Your task to perform on an android device: turn on improve location accuracy Image 0: 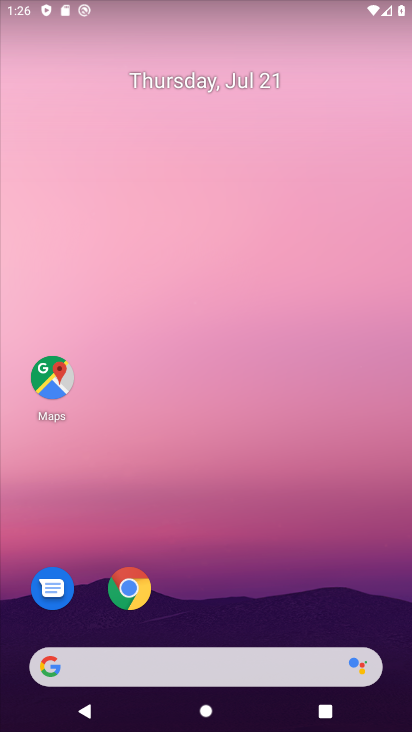
Step 0: drag from (242, 615) to (208, 55)
Your task to perform on an android device: turn on improve location accuracy Image 1: 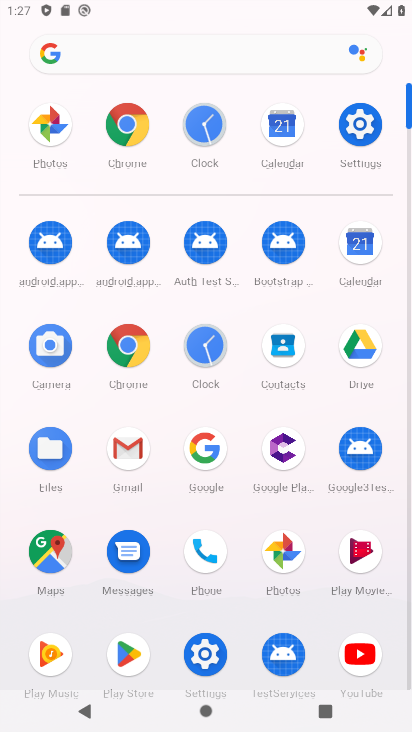
Step 1: click (363, 124)
Your task to perform on an android device: turn on improve location accuracy Image 2: 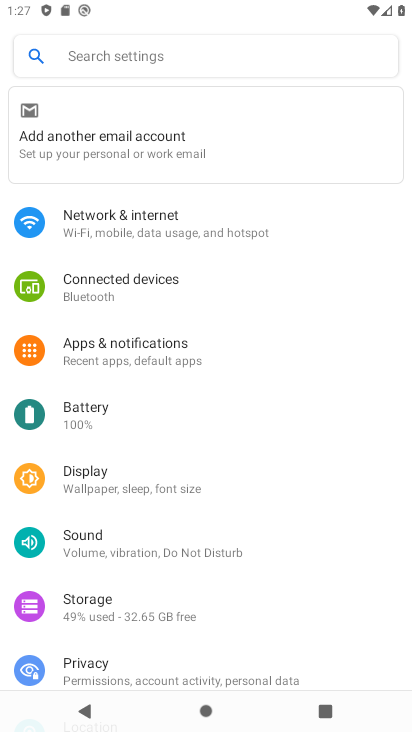
Step 2: drag from (171, 603) to (151, 210)
Your task to perform on an android device: turn on improve location accuracy Image 3: 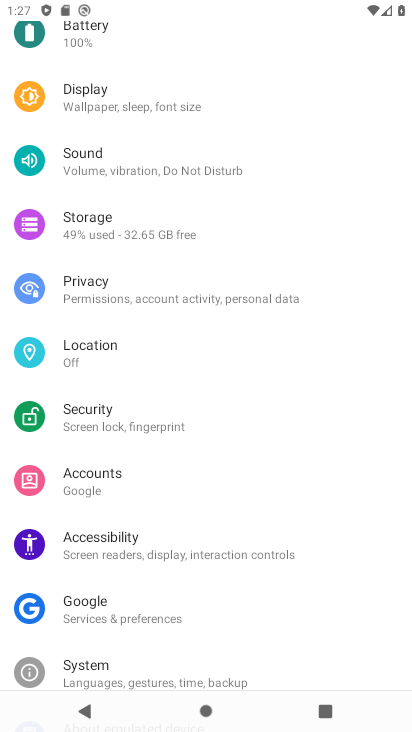
Step 3: click (57, 364)
Your task to perform on an android device: turn on improve location accuracy Image 4: 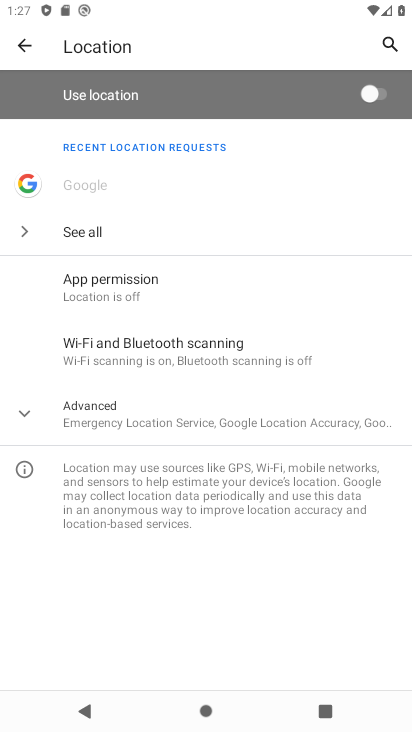
Step 4: click (85, 409)
Your task to perform on an android device: turn on improve location accuracy Image 5: 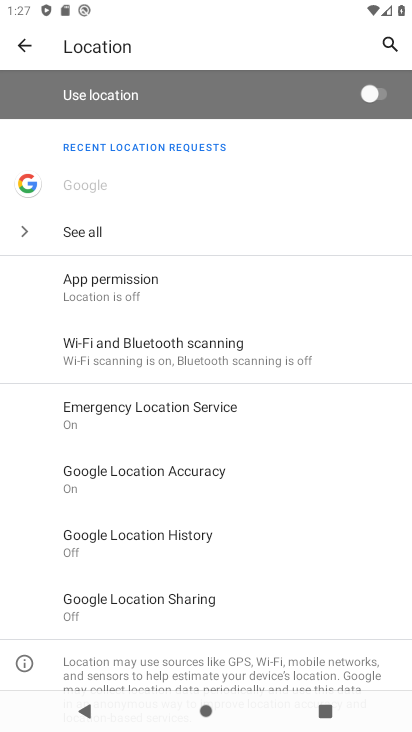
Step 5: click (185, 468)
Your task to perform on an android device: turn on improve location accuracy Image 6: 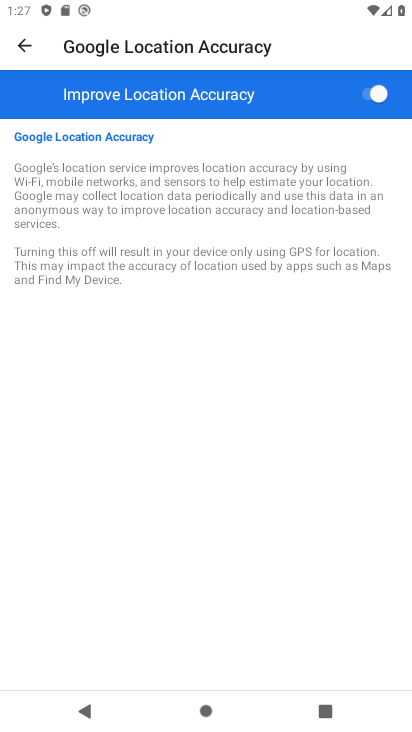
Step 6: task complete